Your task to perform on an android device: see creations saved in the google photos Image 0: 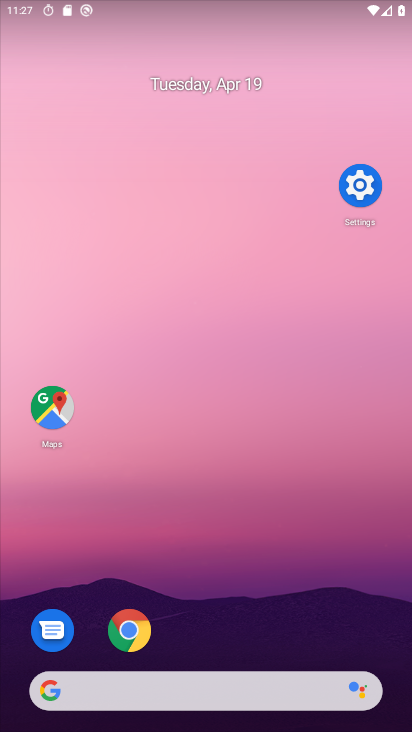
Step 0: drag from (250, 609) to (269, 197)
Your task to perform on an android device: see creations saved in the google photos Image 1: 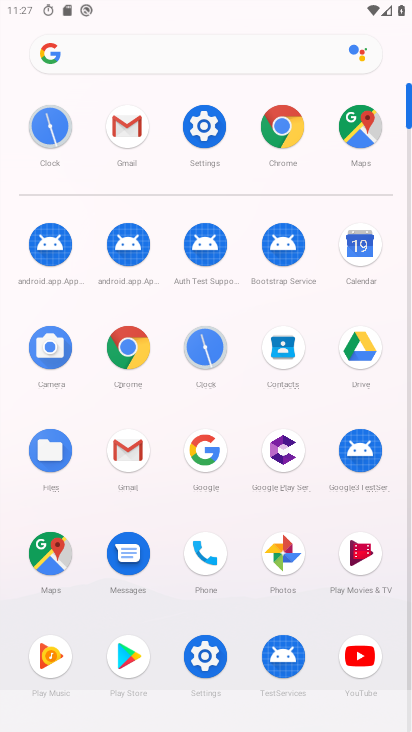
Step 1: click (287, 561)
Your task to perform on an android device: see creations saved in the google photos Image 2: 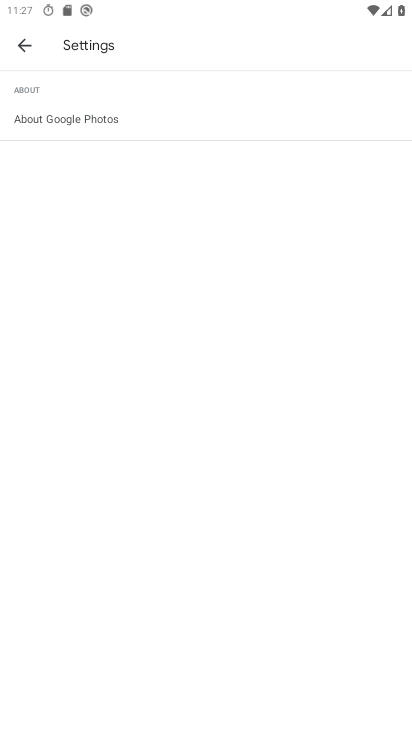
Step 2: press home button
Your task to perform on an android device: see creations saved in the google photos Image 3: 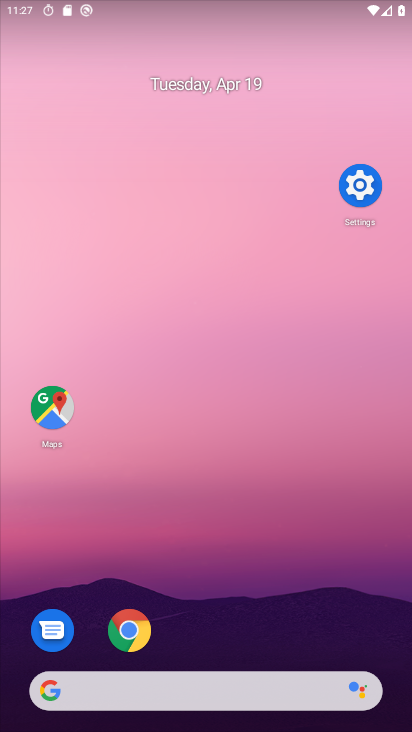
Step 3: drag from (221, 666) to (268, 255)
Your task to perform on an android device: see creations saved in the google photos Image 4: 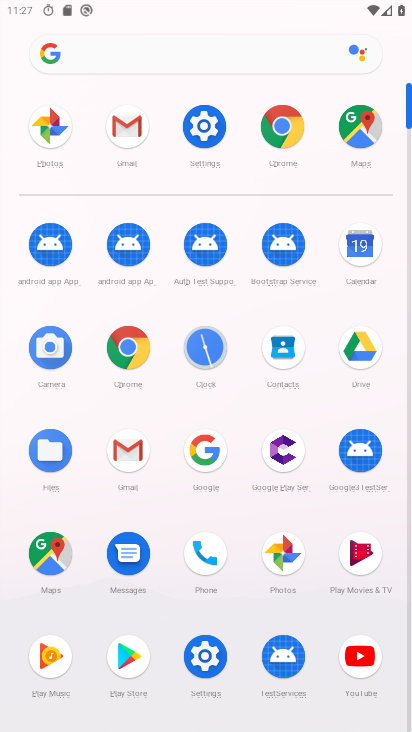
Step 4: click (291, 547)
Your task to perform on an android device: see creations saved in the google photos Image 5: 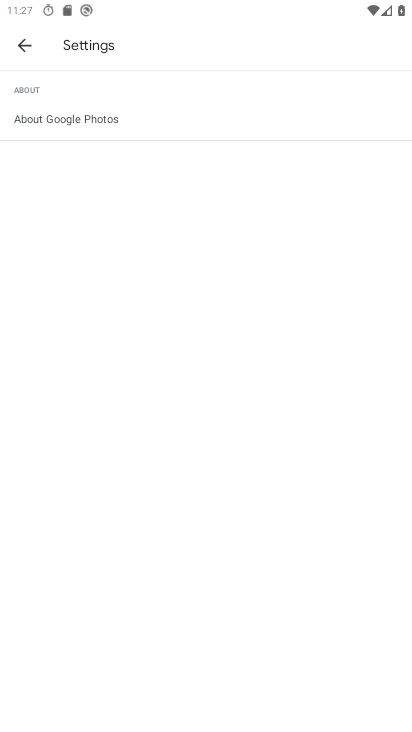
Step 5: click (25, 47)
Your task to perform on an android device: see creations saved in the google photos Image 6: 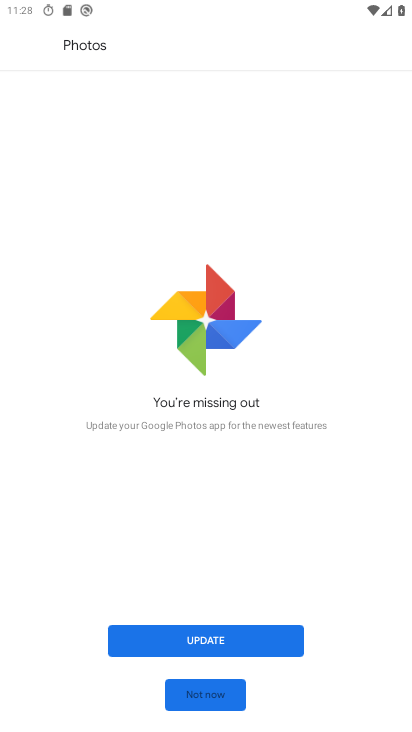
Step 6: task complete